Your task to perform on an android device: Open settings Image 0: 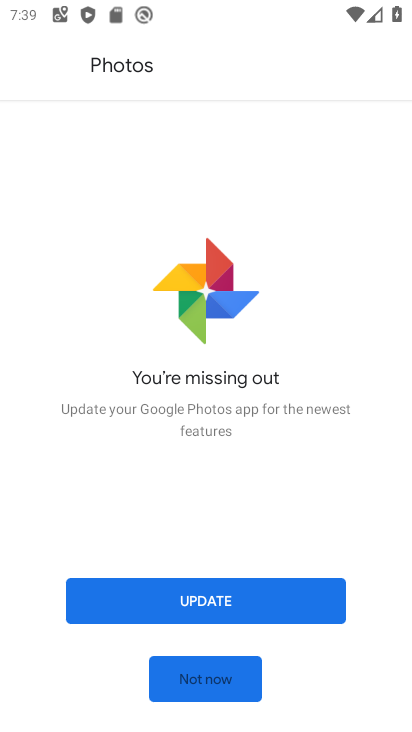
Step 0: press home button
Your task to perform on an android device: Open settings Image 1: 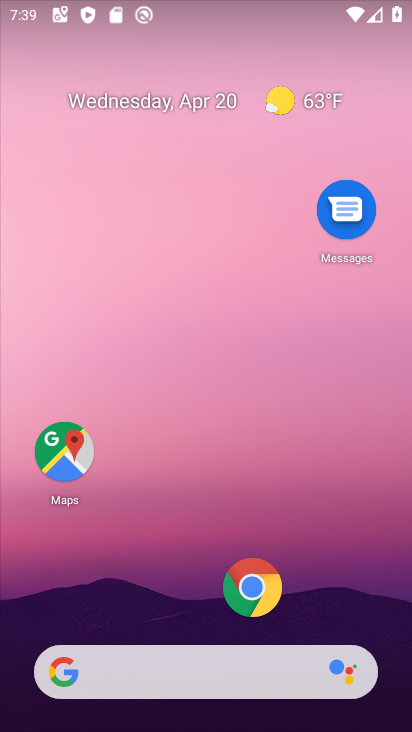
Step 1: drag from (152, 661) to (259, 165)
Your task to perform on an android device: Open settings Image 2: 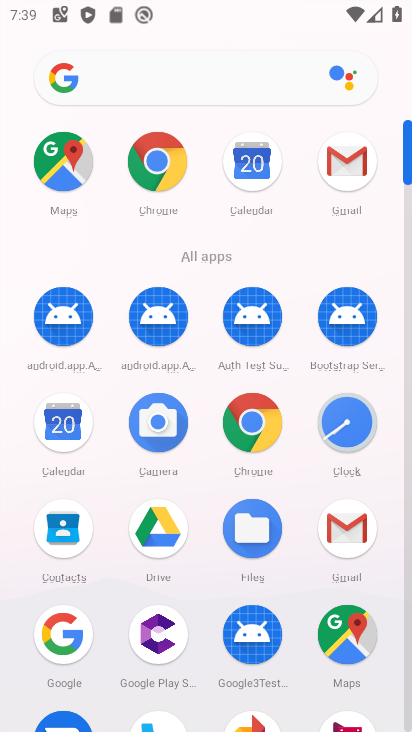
Step 2: drag from (213, 548) to (331, 111)
Your task to perform on an android device: Open settings Image 3: 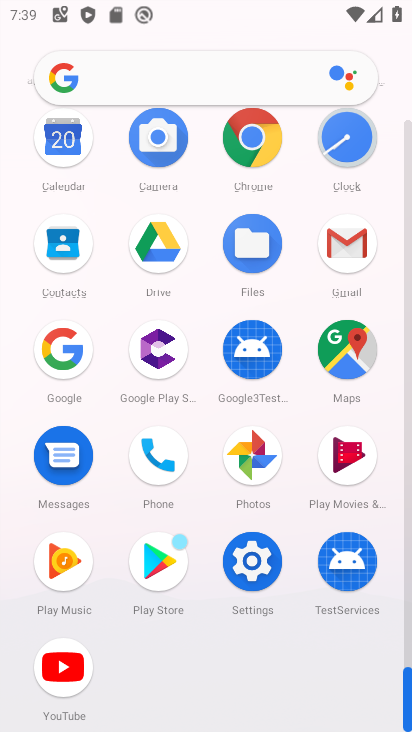
Step 3: click (259, 569)
Your task to perform on an android device: Open settings Image 4: 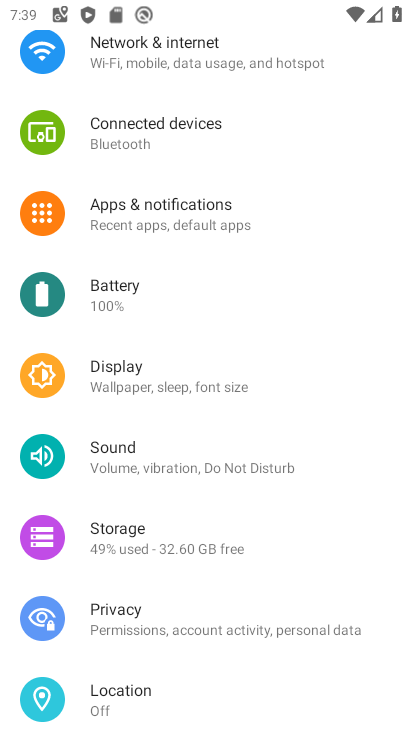
Step 4: task complete